Your task to perform on an android device: Is it going to rain today? Image 0: 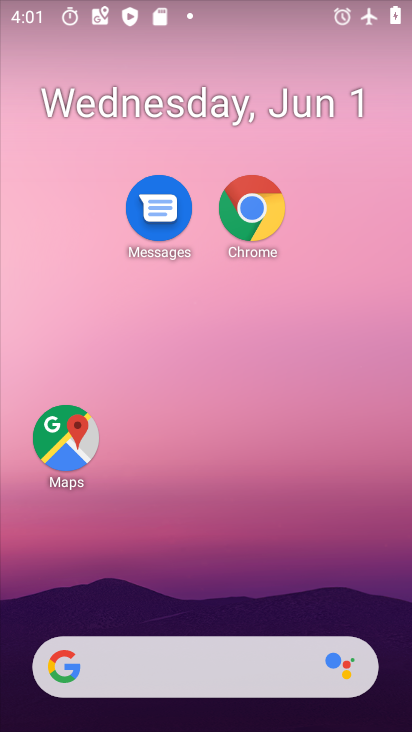
Step 0: drag from (211, 591) to (212, 259)
Your task to perform on an android device: Is it going to rain today? Image 1: 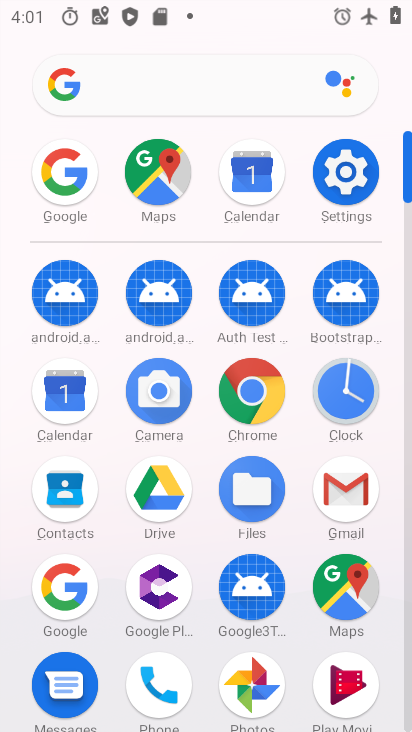
Step 1: click (72, 185)
Your task to perform on an android device: Is it going to rain today? Image 2: 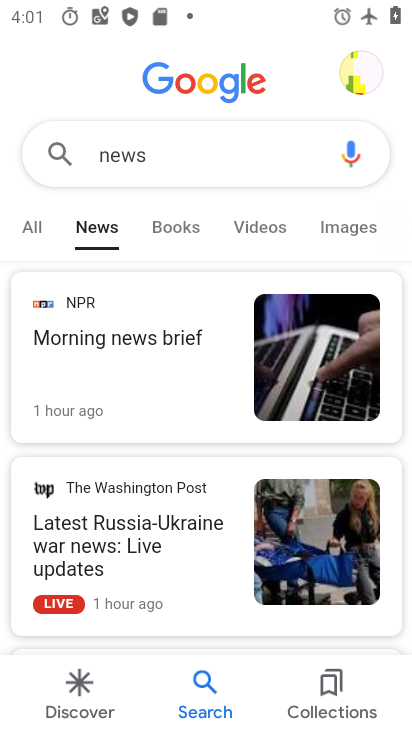
Step 2: click (202, 162)
Your task to perform on an android device: Is it going to rain today? Image 3: 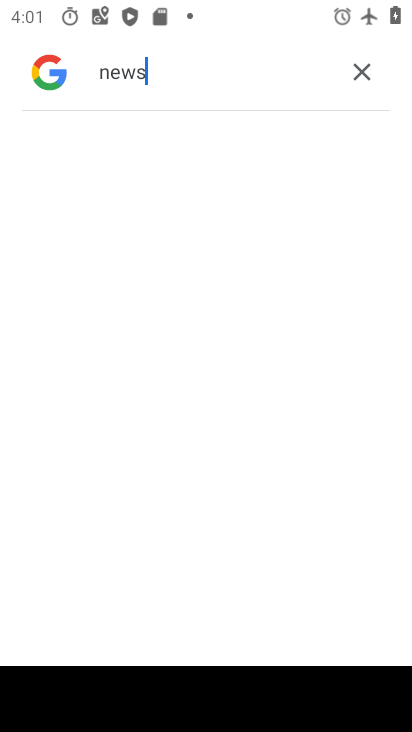
Step 3: click (375, 68)
Your task to perform on an android device: Is it going to rain today? Image 4: 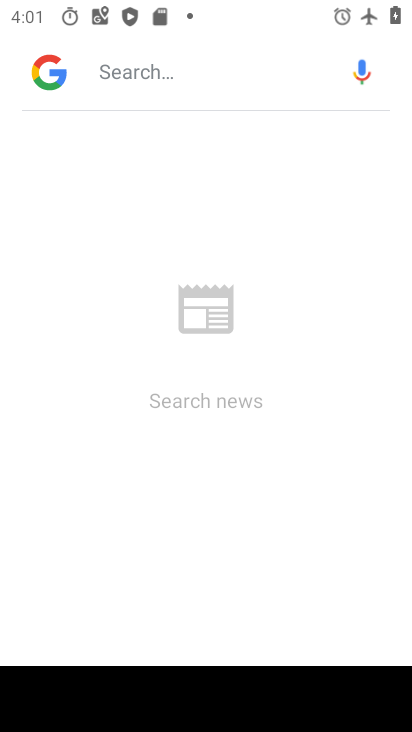
Step 4: click (141, 76)
Your task to perform on an android device: Is it going to rain today? Image 5: 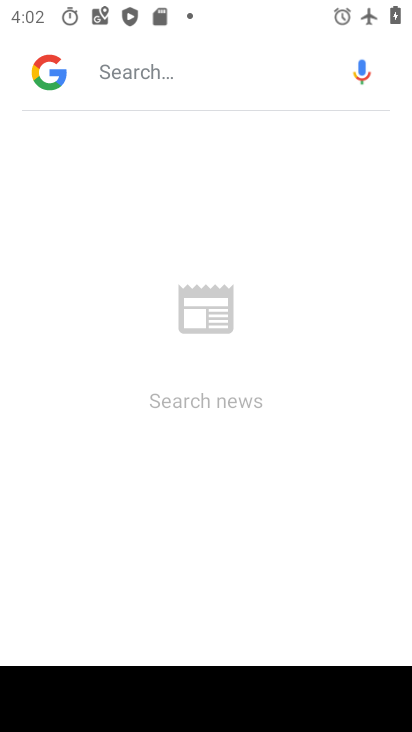
Step 5: task complete